Your task to perform on an android device: Go to Yahoo.com Image 0: 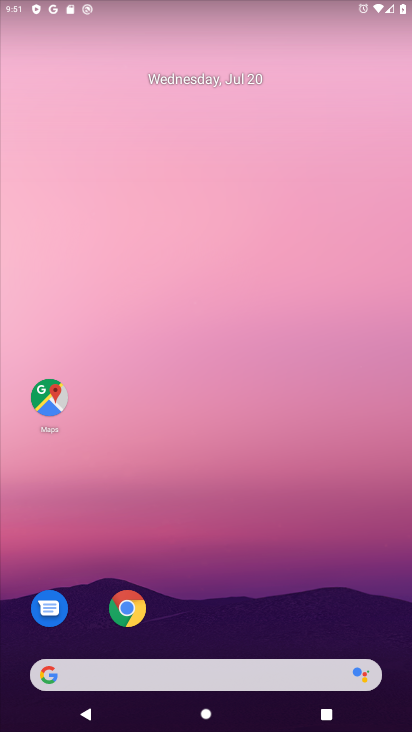
Step 0: click (256, 157)
Your task to perform on an android device: Go to Yahoo.com Image 1: 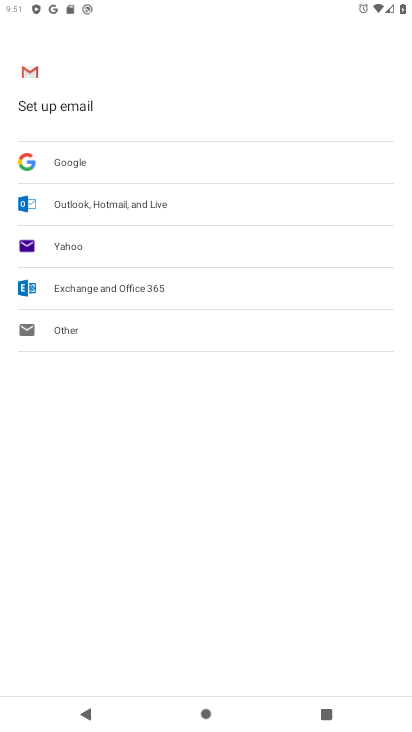
Step 1: press home button
Your task to perform on an android device: Go to Yahoo.com Image 2: 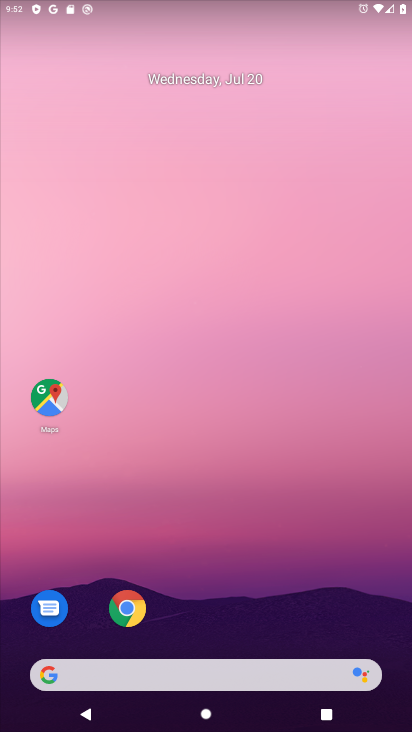
Step 2: drag from (220, 639) to (234, 8)
Your task to perform on an android device: Go to Yahoo.com Image 3: 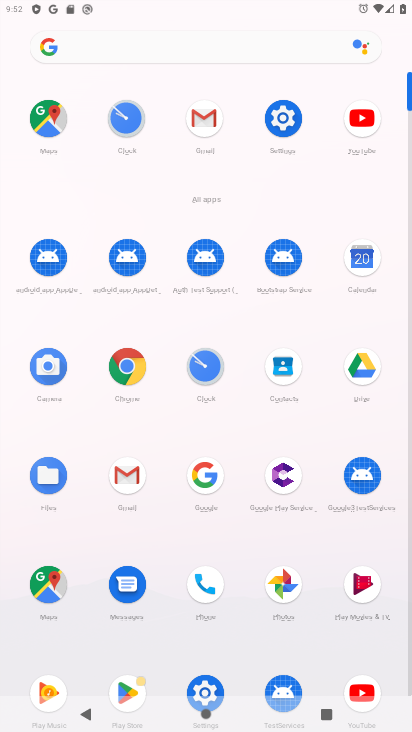
Step 3: click (125, 362)
Your task to perform on an android device: Go to Yahoo.com Image 4: 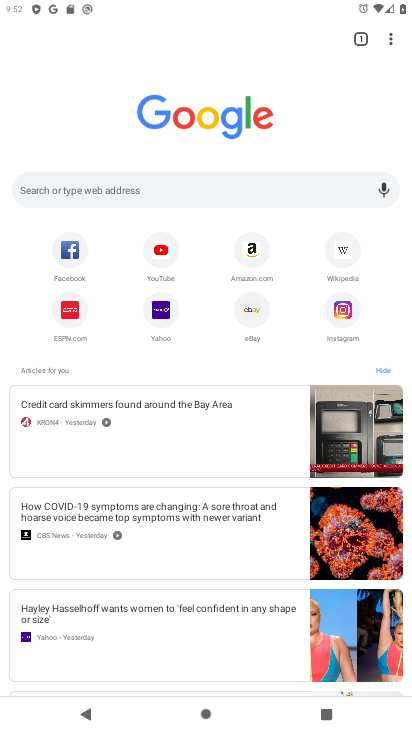
Step 4: click (158, 309)
Your task to perform on an android device: Go to Yahoo.com Image 5: 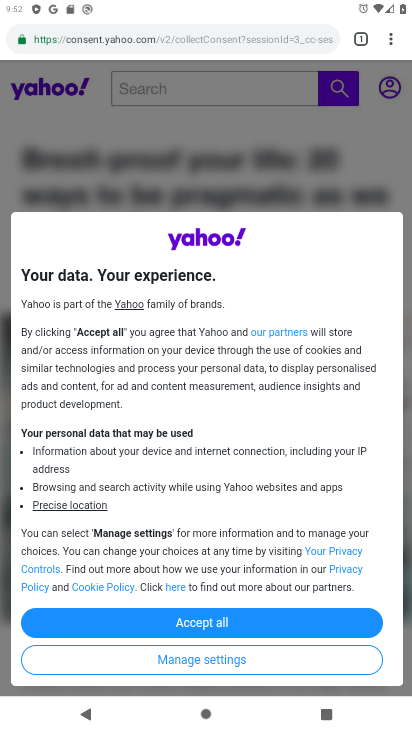
Step 5: click (205, 625)
Your task to perform on an android device: Go to Yahoo.com Image 6: 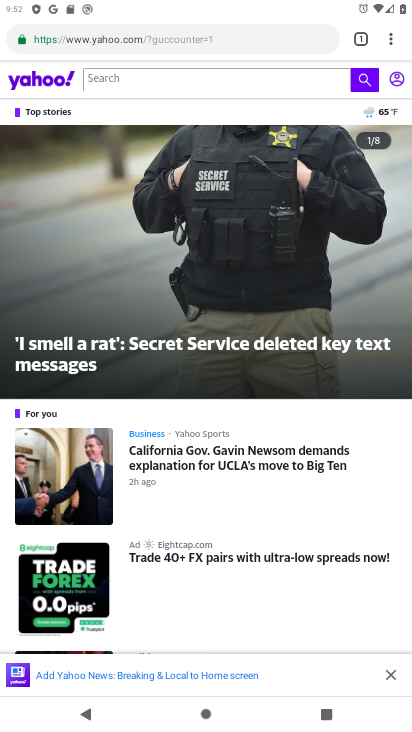
Step 6: task complete